Your task to perform on an android device: change keyboard looks Image 0: 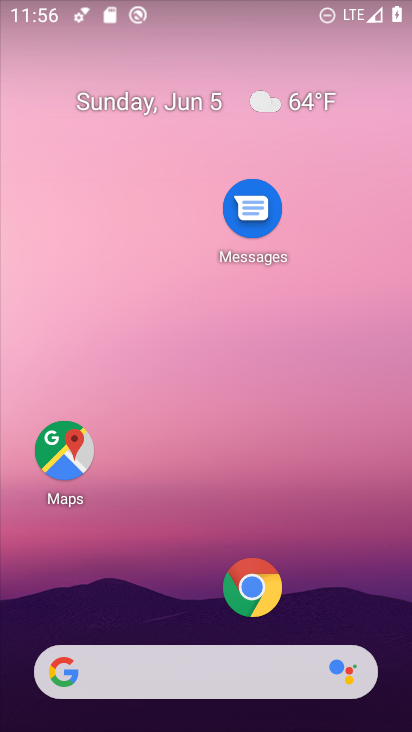
Step 0: click (257, 636)
Your task to perform on an android device: change keyboard looks Image 1: 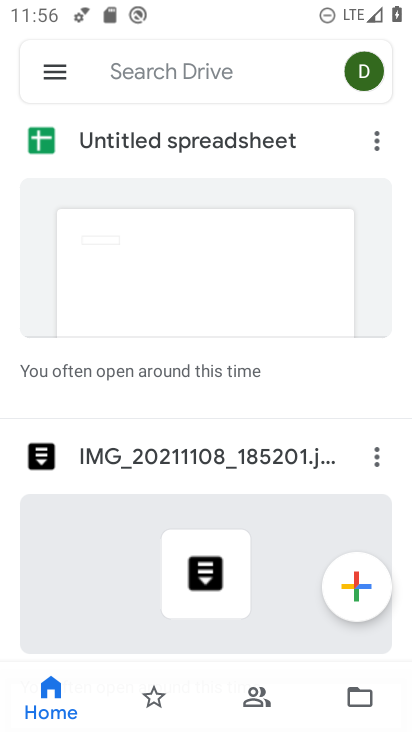
Step 1: task complete